Your task to perform on an android device: open app "The Home Depot" (install if not already installed) and enter user name: "taproot@icloud.com" and password: "executions" Image 0: 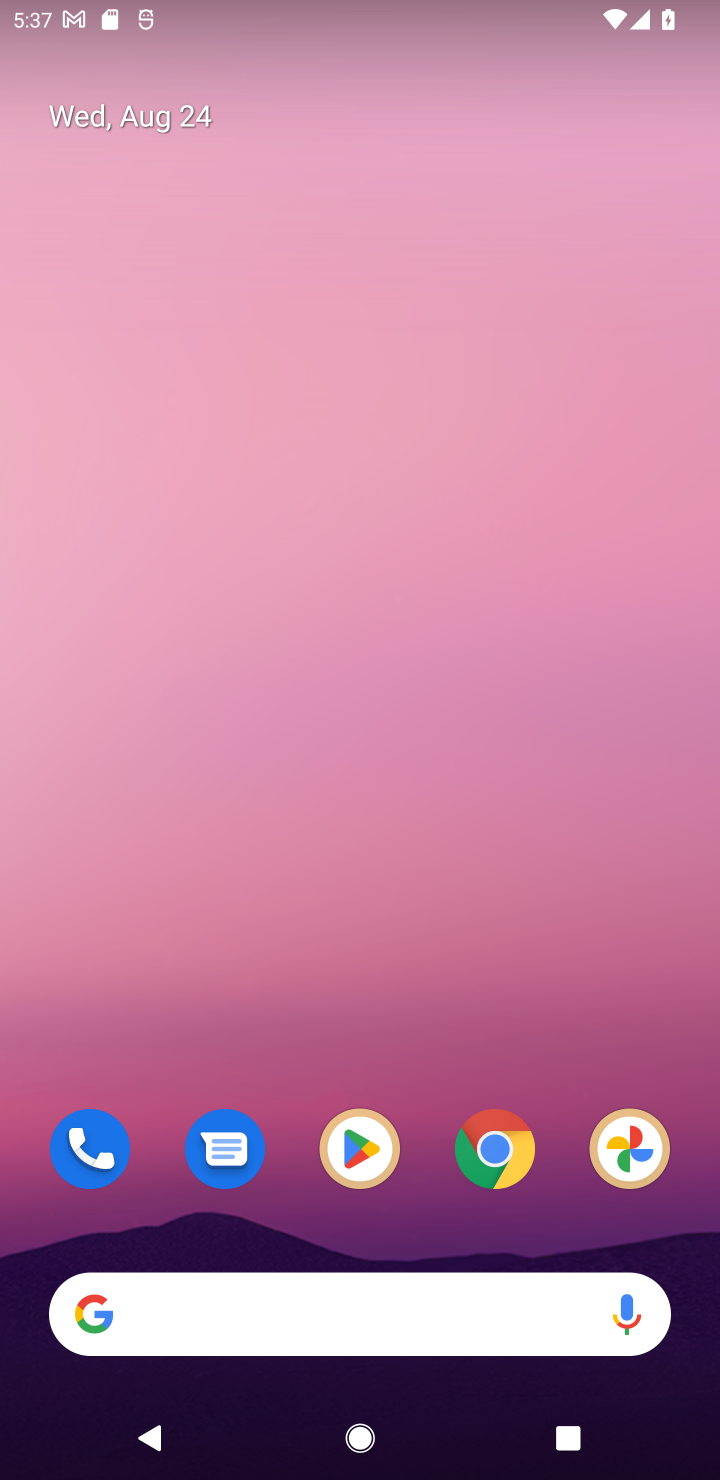
Step 0: click (355, 1145)
Your task to perform on an android device: open app "The Home Depot" (install if not already installed) and enter user name: "taproot@icloud.com" and password: "executions" Image 1: 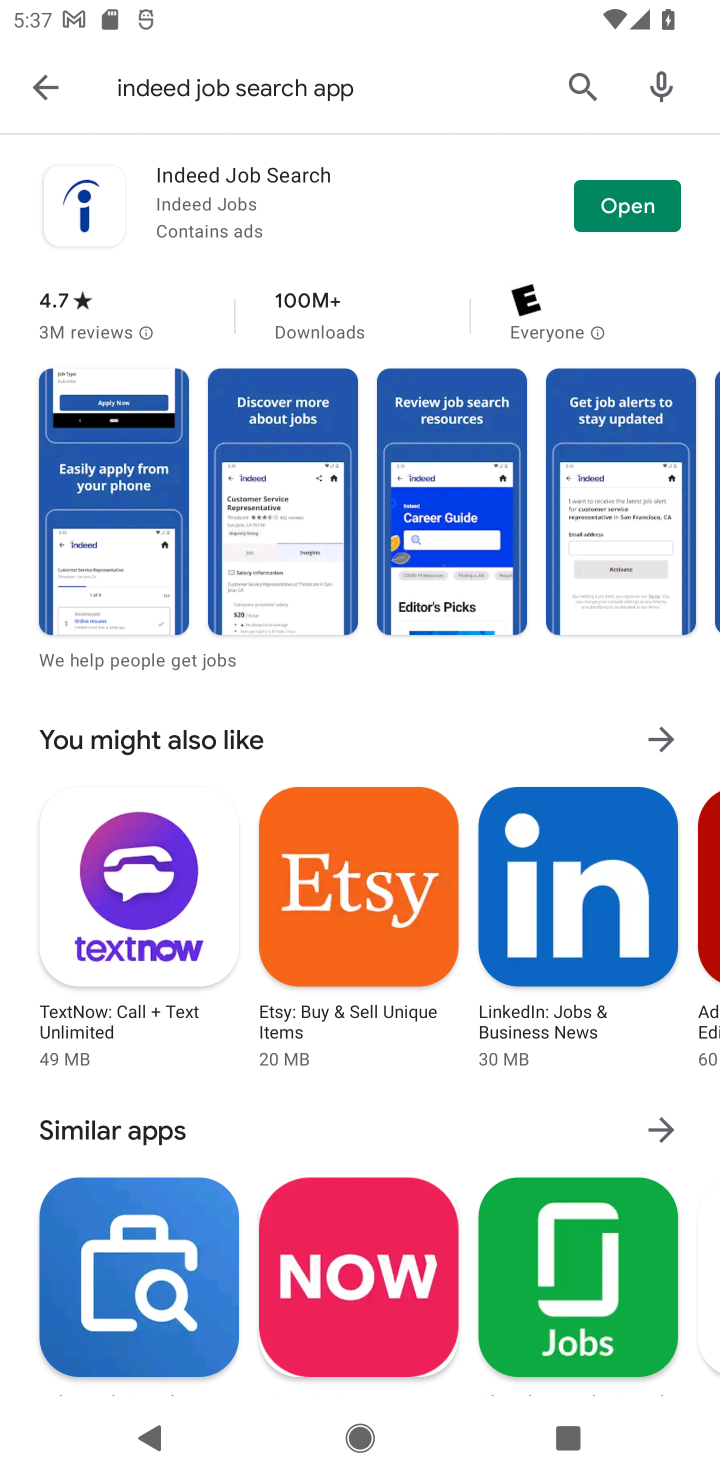
Step 1: click (576, 81)
Your task to perform on an android device: open app "The Home Depot" (install if not already installed) and enter user name: "taproot@icloud.com" and password: "executions" Image 2: 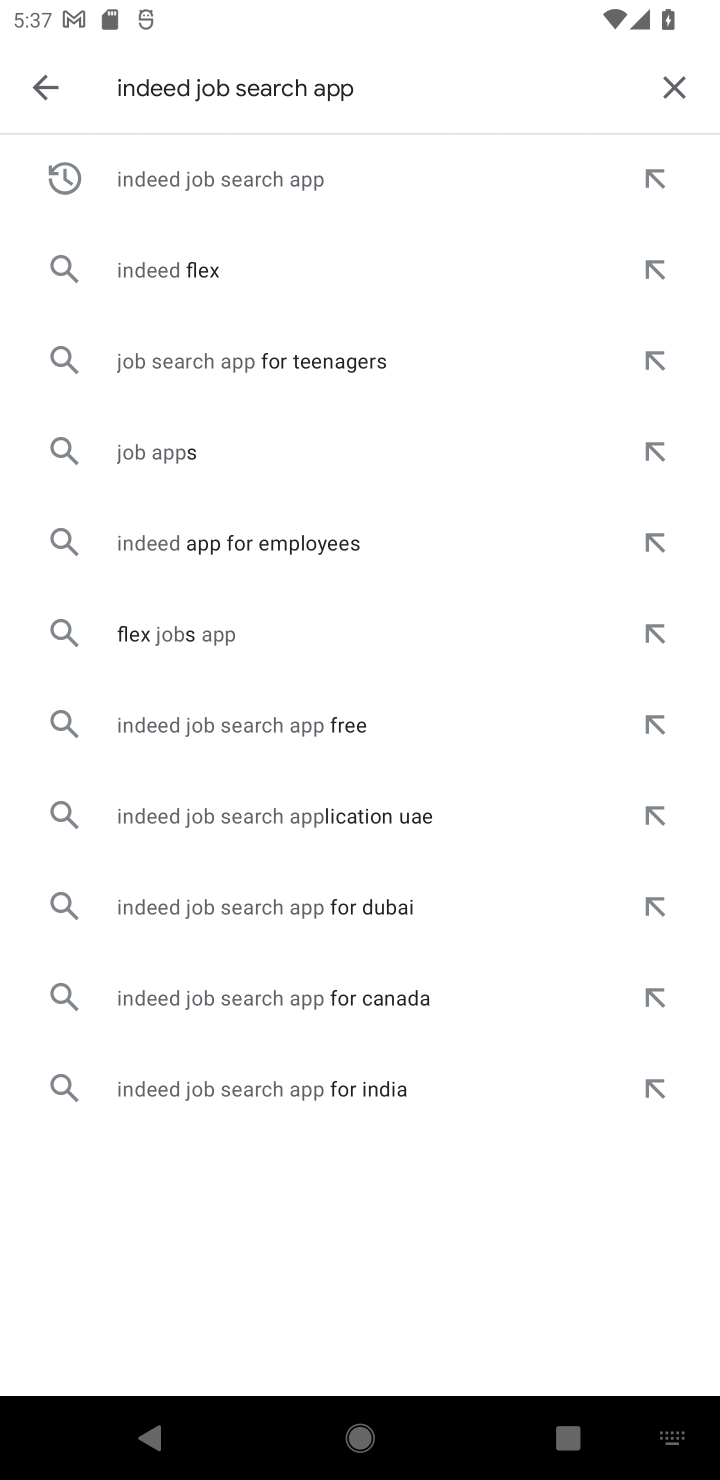
Step 2: click (682, 79)
Your task to perform on an android device: open app "The Home Depot" (install if not already installed) and enter user name: "taproot@icloud.com" and password: "executions" Image 3: 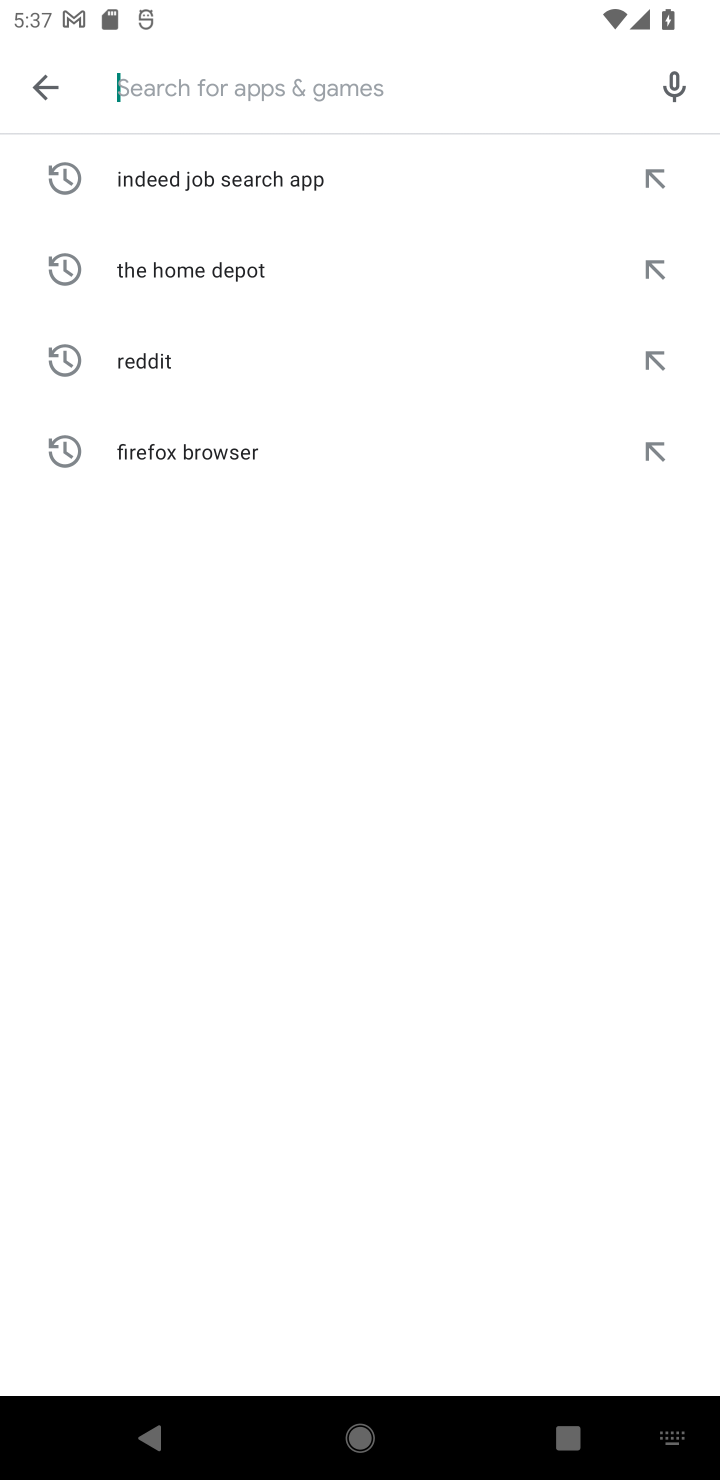
Step 3: type "The Home Depot"
Your task to perform on an android device: open app "The Home Depot" (install if not already installed) and enter user name: "taproot@icloud.com" and password: "executions" Image 4: 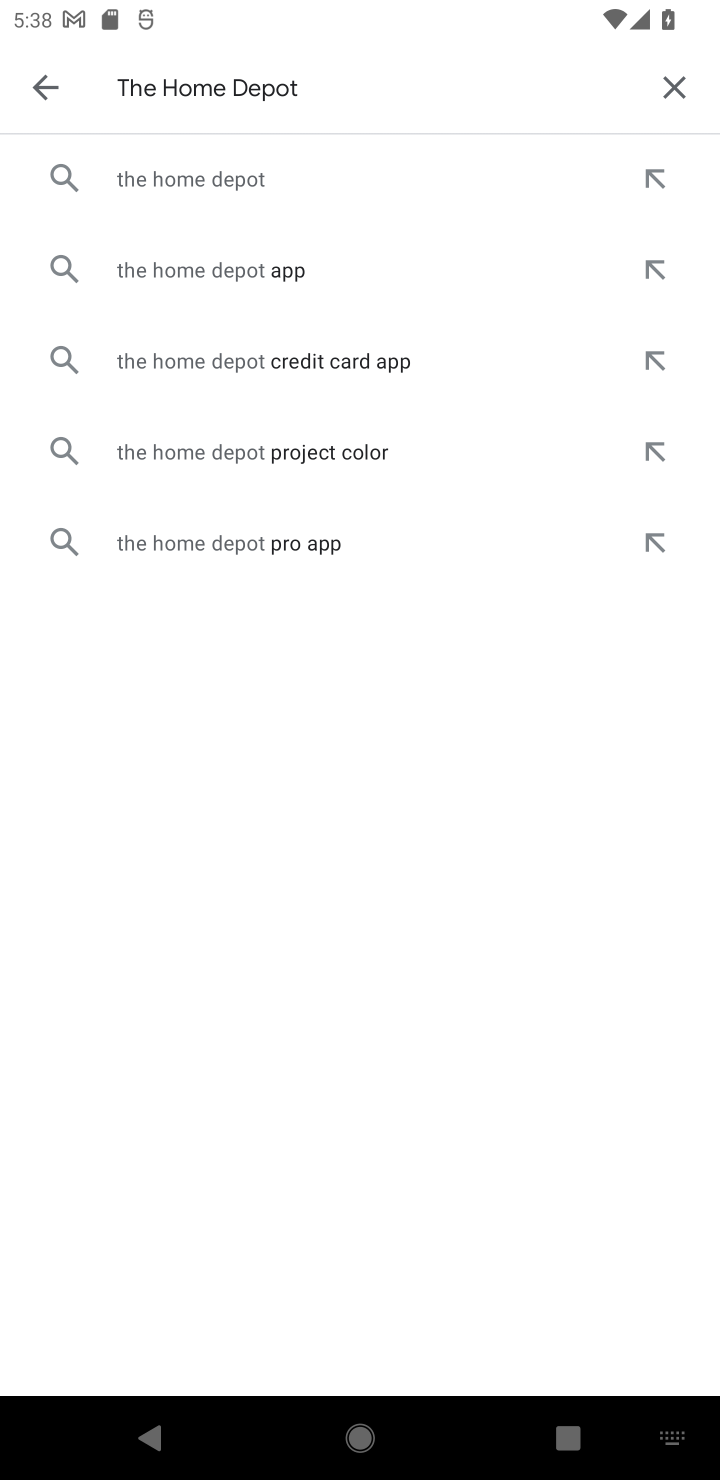
Step 4: click (258, 178)
Your task to perform on an android device: open app "The Home Depot" (install if not already installed) and enter user name: "taproot@icloud.com" and password: "executions" Image 5: 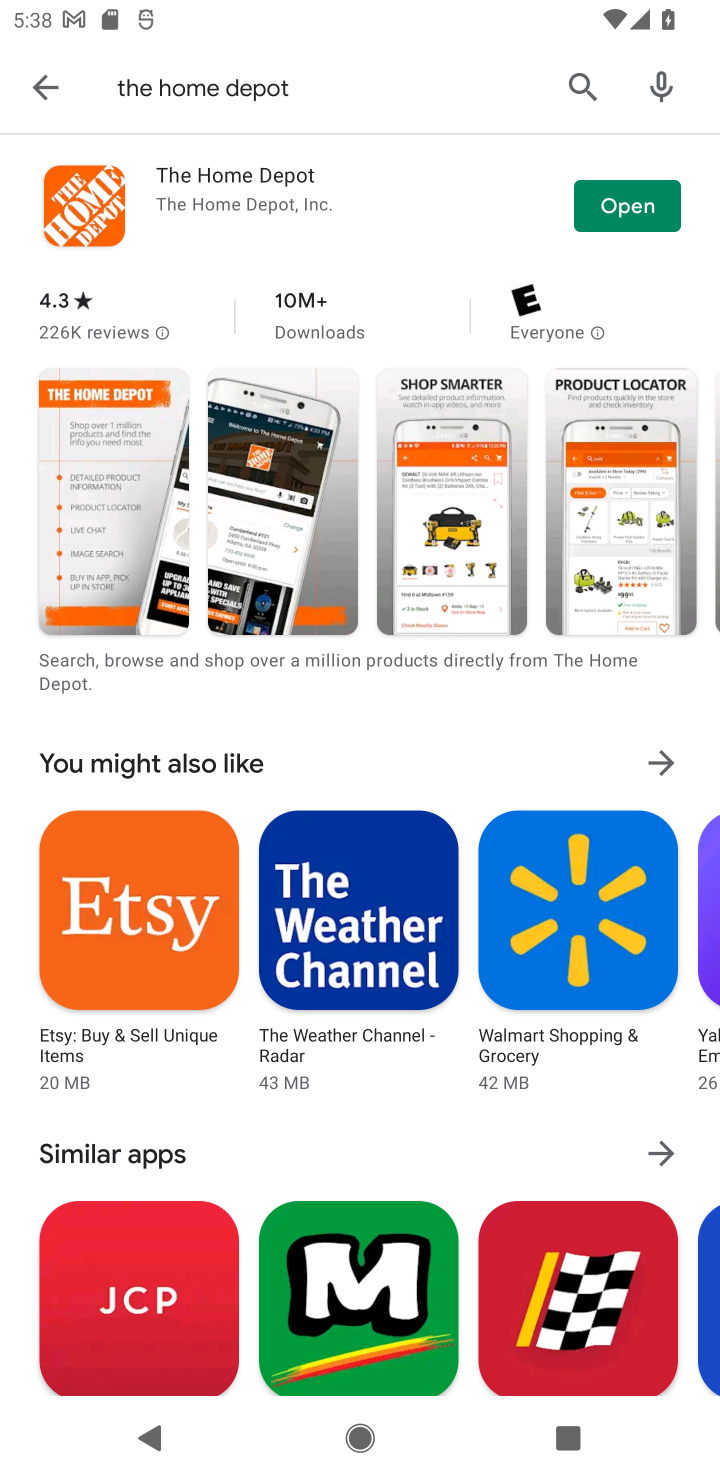
Step 5: click (638, 195)
Your task to perform on an android device: open app "The Home Depot" (install if not already installed) and enter user name: "taproot@icloud.com" and password: "executions" Image 6: 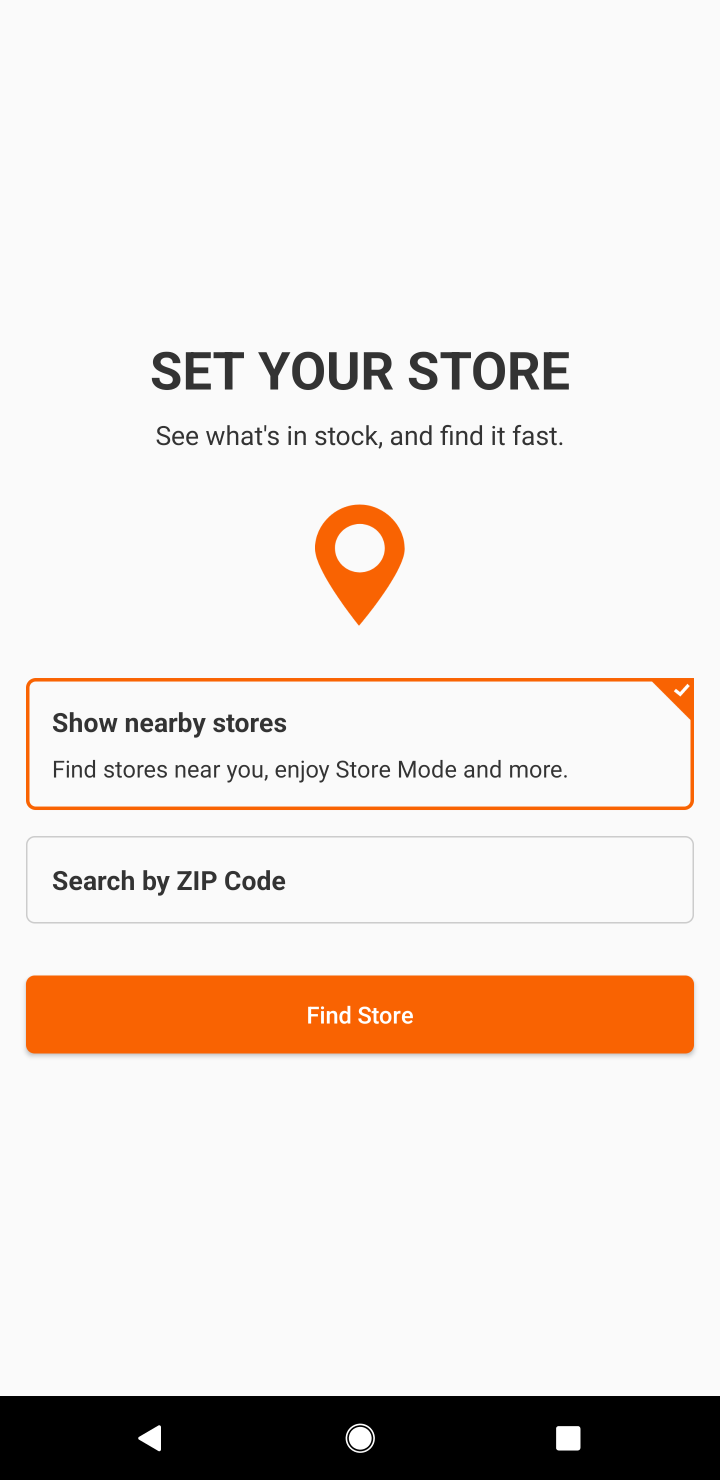
Step 6: task complete